Your task to perform on an android device: Turn on the flashlight Image 0: 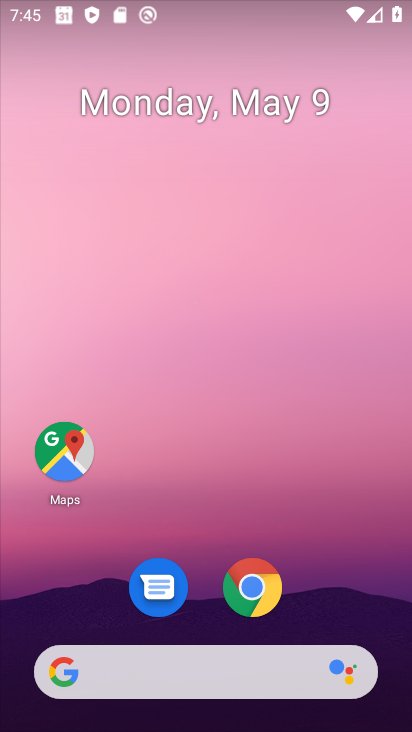
Step 0: drag from (203, 638) to (115, 81)
Your task to perform on an android device: Turn on the flashlight Image 1: 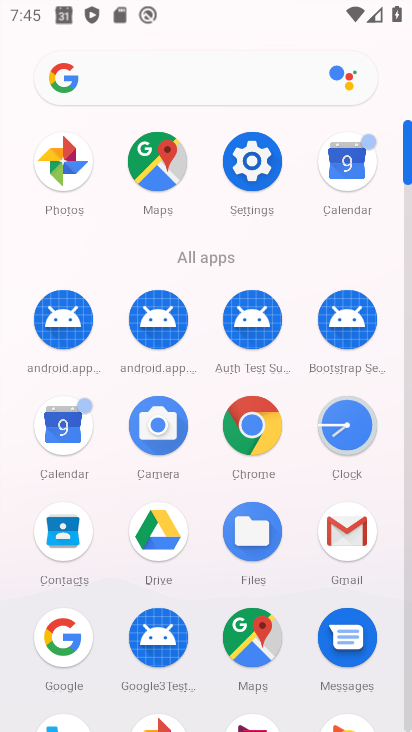
Step 1: click (262, 166)
Your task to perform on an android device: Turn on the flashlight Image 2: 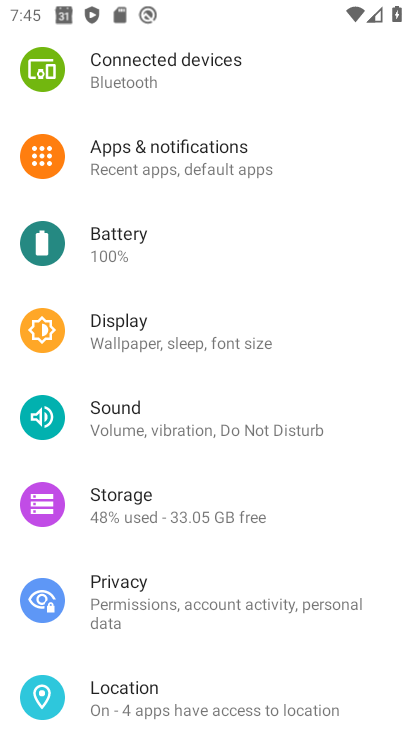
Step 2: drag from (206, 120) to (186, 626)
Your task to perform on an android device: Turn on the flashlight Image 3: 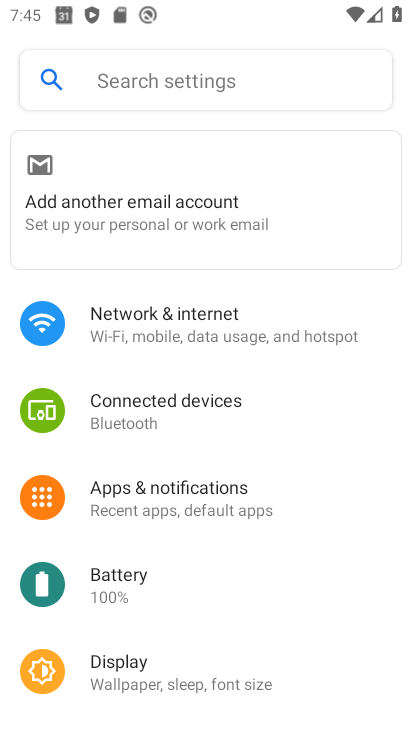
Step 3: click (147, 85)
Your task to perform on an android device: Turn on the flashlight Image 4: 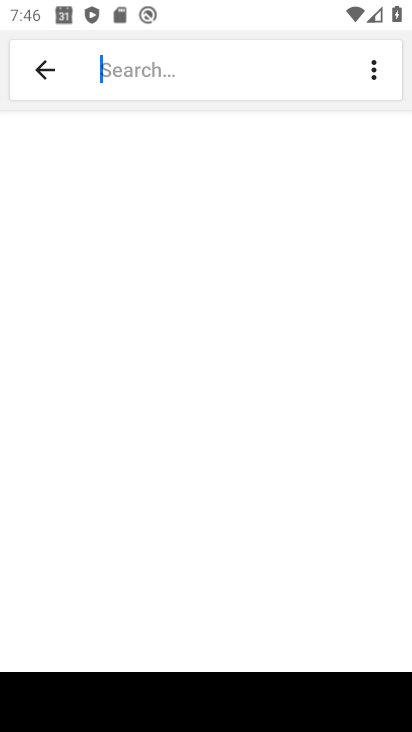
Step 4: type ""
Your task to perform on an android device: Turn on the flashlight Image 5: 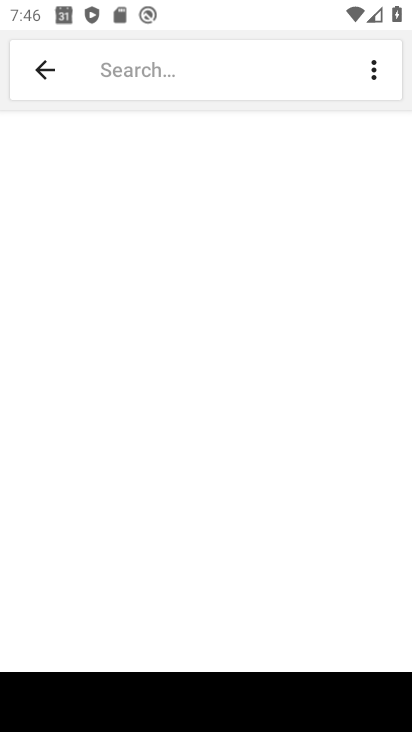
Step 5: task complete